Your task to perform on an android device: Open calendar and show me the third week of next month Image 0: 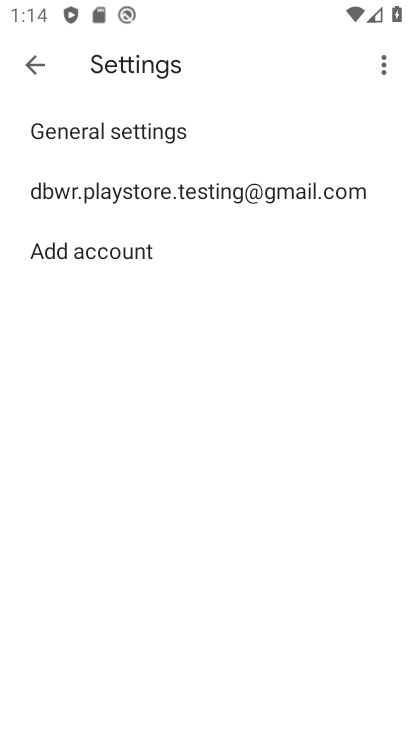
Step 0: press home button
Your task to perform on an android device: Open calendar and show me the third week of next month Image 1: 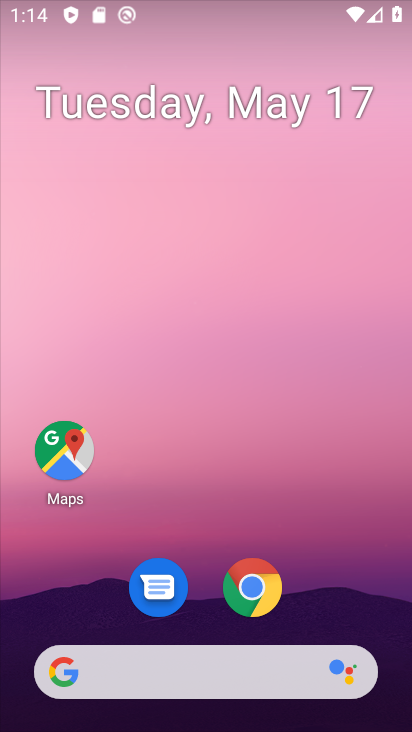
Step 1: drag from (382, 614) to (343, 131)
Your task to perform on an android device: Open calendar and show me the third week of next month Image 2: 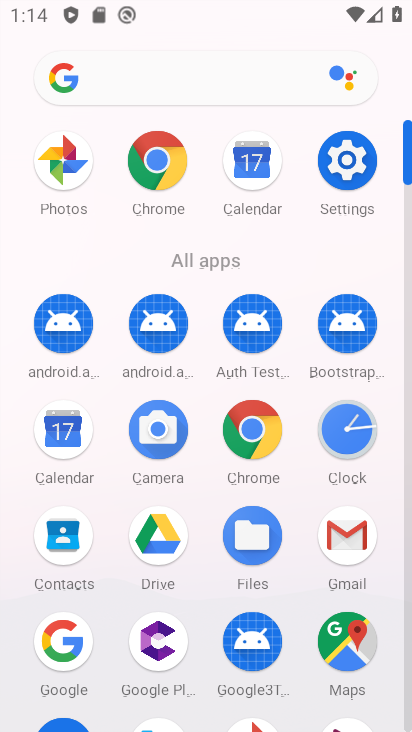
Step 2: click (58, 423)
Your task to perform on an android device: Open calendar and show me the third week of next month Image 3: 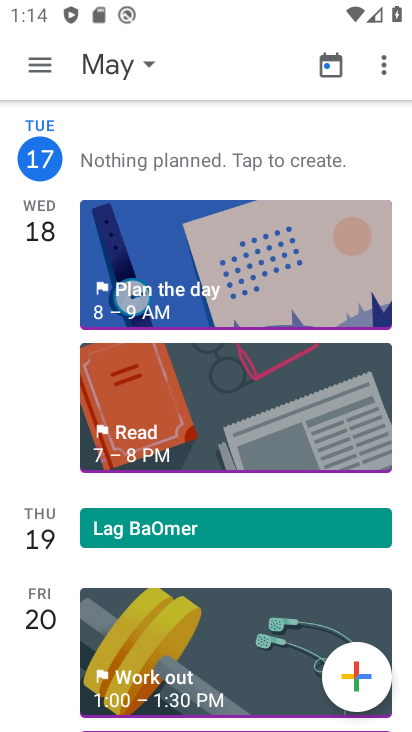
Step 3: click (124, 73)
Your task to perform on an android device: Open calendar and show me the third week of next month Image 4: 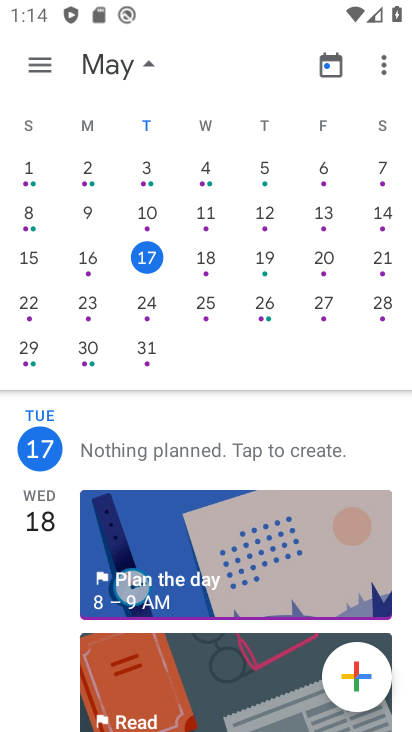
Step 4: drag from (360, 191) to (6, 183)
Your task to perform on an android device: Open calendar and show me the third week of next month Image 5: 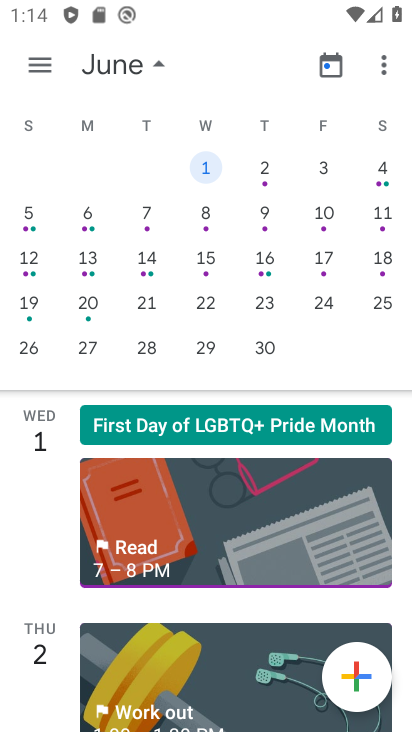
Step 5: click (31, 263)
Your task to perform on an android device: Open calendar and show me the third week of next month Image 6: 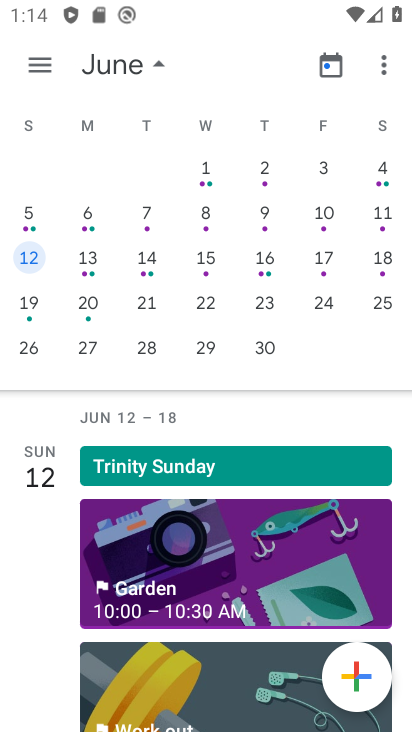
Step 6: task complete